Your task to perform on an android device: Show the shopping cart on bestbuy. Search for logitech g pro on bestbuy, select the first entry, and add it to the cart. Image 0: 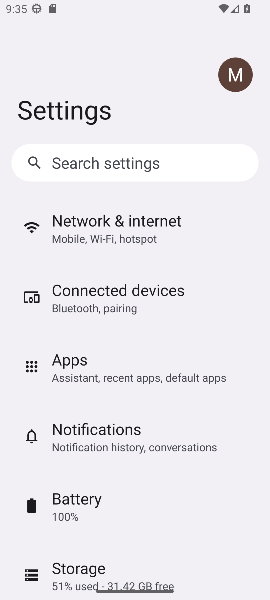
Step 0: press home button
Your task to perform on an android device: Show the shopping cart on bestbuy. Search for logitech g pro on bestbuy, select the first entry, and add it to the cart. Image 1: 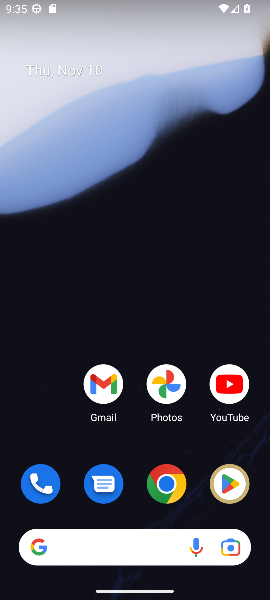
Step 1: click (165, 491)
Your task to perform on an android device: Show the shopping cart on bestbuy. Search for logitech g pro on bestbuy, select the first entry, and add it to the cart. Image 2: 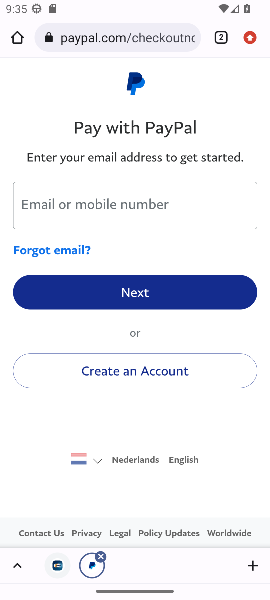
Step 2: click (94, 44)
Your task to perform on an android device: Show the shopping cart on bestbuy. Search for logitech g pro on bestbuy, select the first entry, and add it to the cart. Image 3: 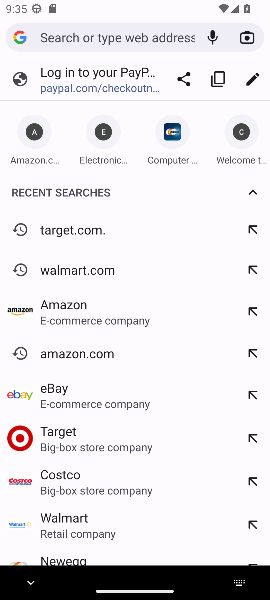
Step 3: type "bestbuy.com"
Your task to perform on an android device: Show the shopping cart on bestbuy. Search for logitech g pro on bestbuy, select the first entry, and add it to the cart. Image 4: 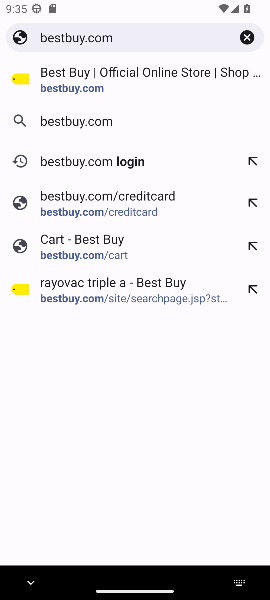
Step 4: click (77, 92)
Your task to perform on an android device: Show the shopping cart on bestbuy. Search for logitech g pro on bestbuy, select the first entry, and add it to the cart. Image 5: 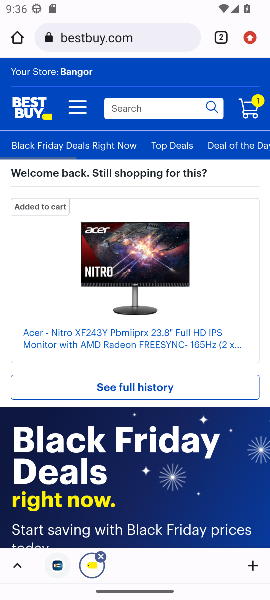
Step 5: click (253, 105)
Your task to perform on an android device: Show the shopping cart on bestbuy. Search for logitech g pro on bestbuy, select the first entry, and add it to the cart. Image 6: 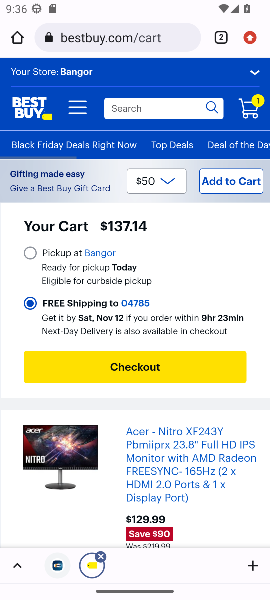
Step 6: drag from (97, 308) to (98, 208)
Your task to perform on an android device: Show the shopping cart on bestbuy. Search for logitech g pro on bestbuy, select the first entry, and add it to the cart. Image 7: 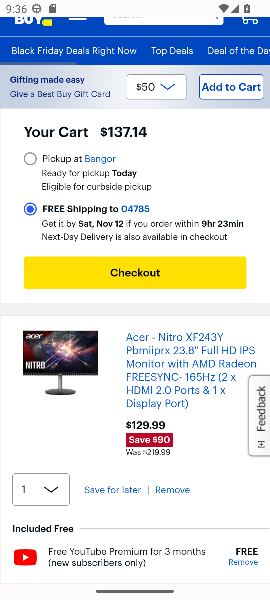
Step 7: drag from (107, 139) to (109, 341)
Your task to perform on an android device: Show the shopping cart on bestbuy. Search for logitech g pro on bestbuy, select the first entry, and add it to the cart. Image 8: 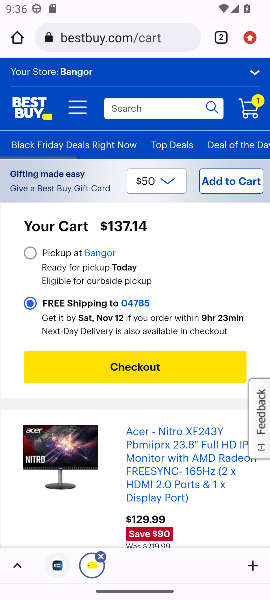
Step 8: click (137, 112)
Your task to perform on an android device: Show the shopping cart on bestbuy. Search for logitech g pro on bestbuy, select the first entry, and add it to the cart. Image 9: 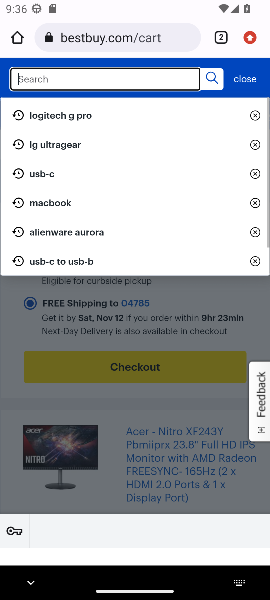
Step 9: type "logitech g pro"
Your task to perform on an android device: Show the shopping cart on bestbuy. Search for logitech g pro on bestbuy, select the first entry, and add it to the cart. Image 10: 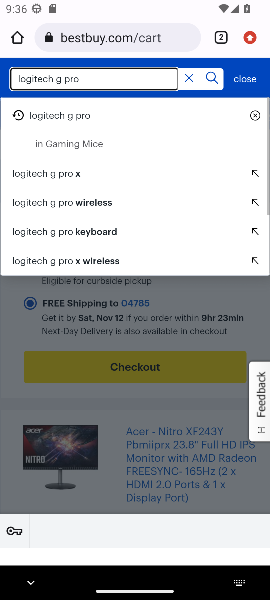
Step 10: click (66, 122)
Your task to perform on an android device: Show the shopping cart on bestbuy. Search for logitech g pro on bestbuy, select the first entry, and add it to the cart. Image 11: 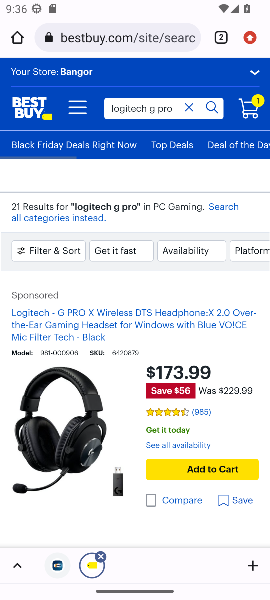
Step 11: click (78, 429)
Your task to perform on an android device: Show the shopping cart on bestbuy. Search for logitech g pro on bestbuy, select the first entry, and add it to the cart. Image 12: 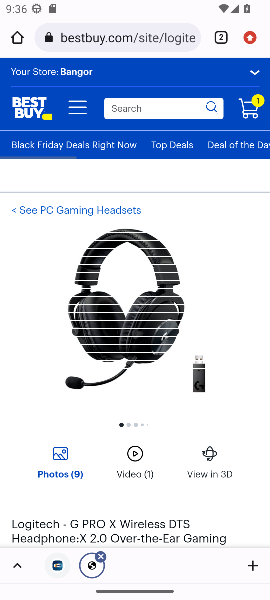
Step 12: drag from (88, 416) to (94, 135)
Your task to perform on an android device: Show the shopping cart on bestbuy. Search for logitech g pro on bestbuy, select the first entry, and add it to the cart. Image 13: 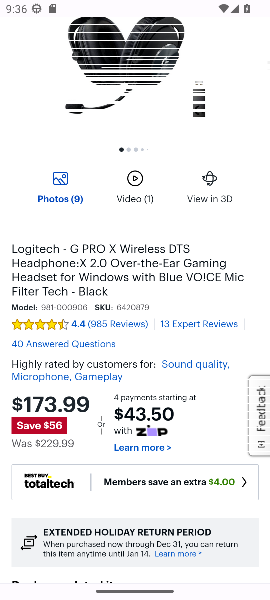
Step 13: drag from (129, 352) to (110, 143)
Your task to perform on an android device: Show the shopping cart on bestbuy. Search for logitech g pro on bestbuy, select the first entry, and add it to the cart. Image 14: 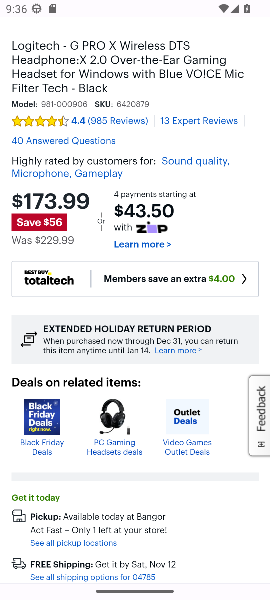
Step 14: drag from (116, 426) to (92, 164)
Your task to perform on an android device: Show the shopping cart on bestbuy. Search for logitech g pro on bestbuy, select the first entry, and add it to the cart. Image 15: 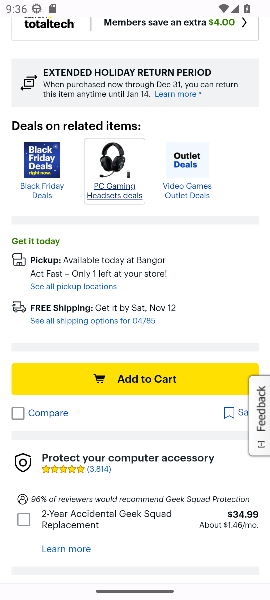
Step 15: click (124, 373)
Your task to perform on an android device: Show the shopping cart on bestbuy. Search for logitech g pro on bestbuy, select the first entry, and add it to the cart. Image 16: 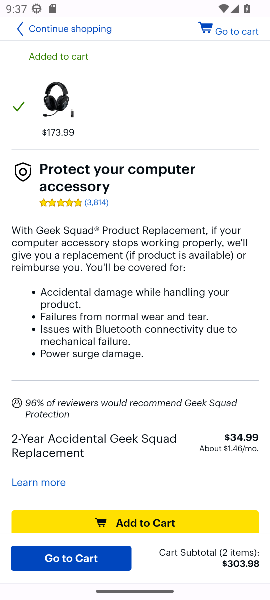
Step 16: task complete